Your task to perform on an android device: change the upload size in google photos Image 0: 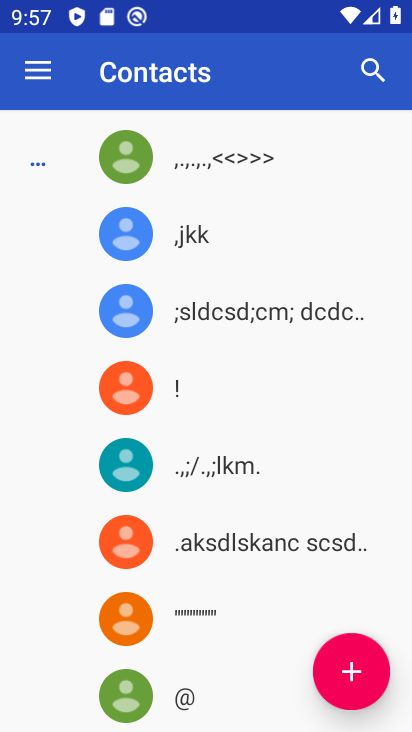
Step 0: press home button
Your task to perform on an android device: change the upload size in google photos Image 1: 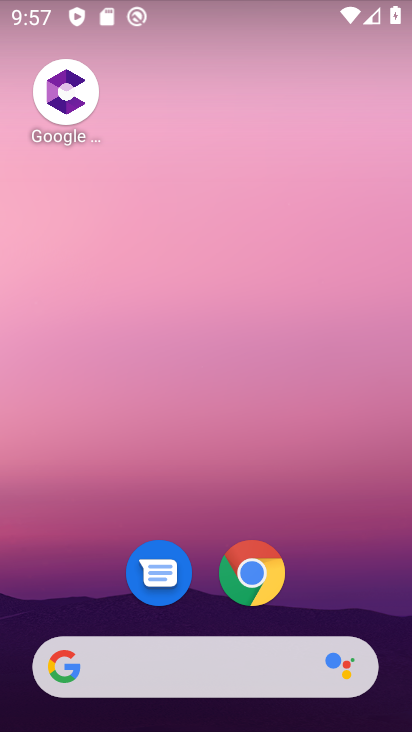
Step 1: drag from (332, 334) to (0, 161)
Your task to perform on an android device: change the upload size in google photos Image 2: 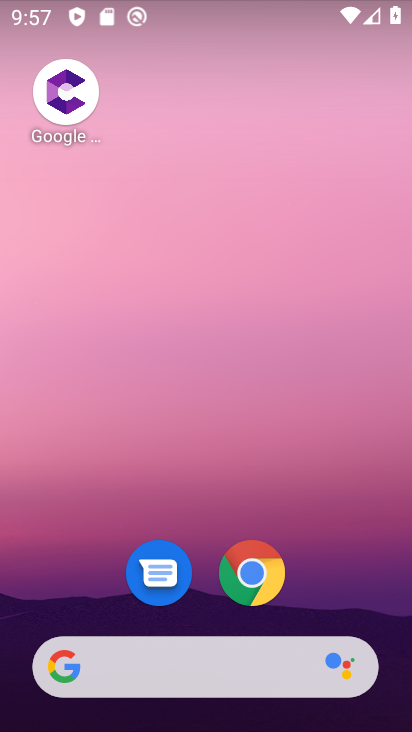
Step 2: drag from (312, 446) to (214, 43)
Your task to perform on an android device: change the upload size in google photos Image 3: 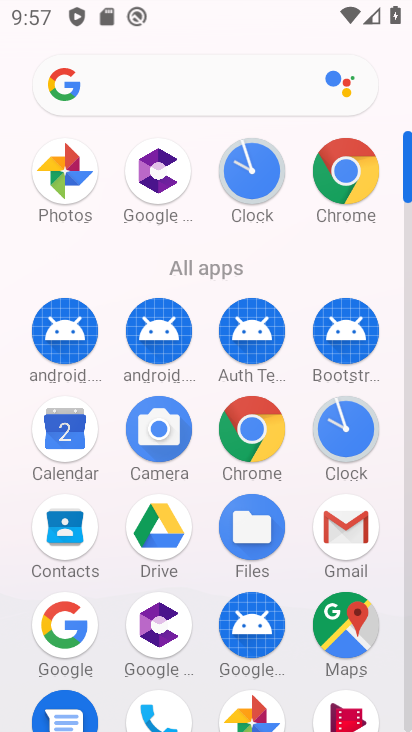
Step 3: click (40, 181)
Your task to perform on an android device: change the upload size in google photos Image 4: 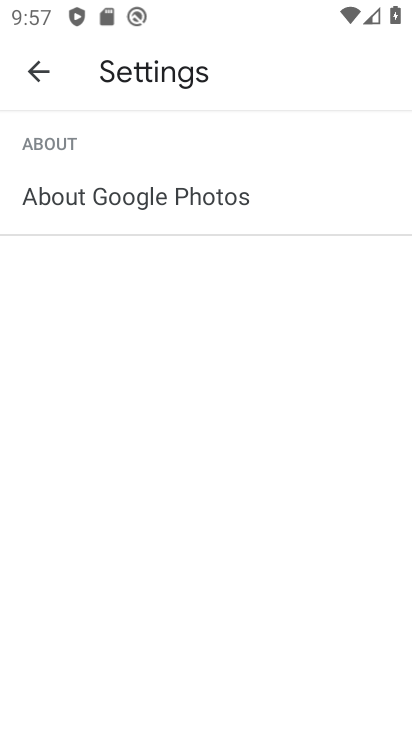
Step 4: click (42, 98)
Your task to perform on an android device: change the upload size in google photos Image 5: 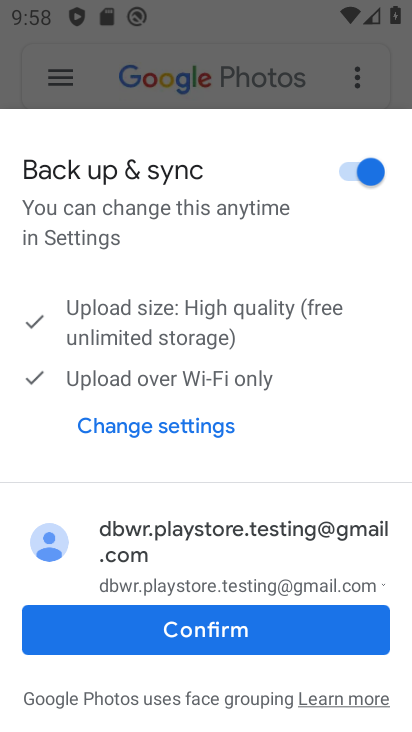
Step 5: click (191, 624)
Your task to perform on an android device: change the upload size in google photos Image 6: 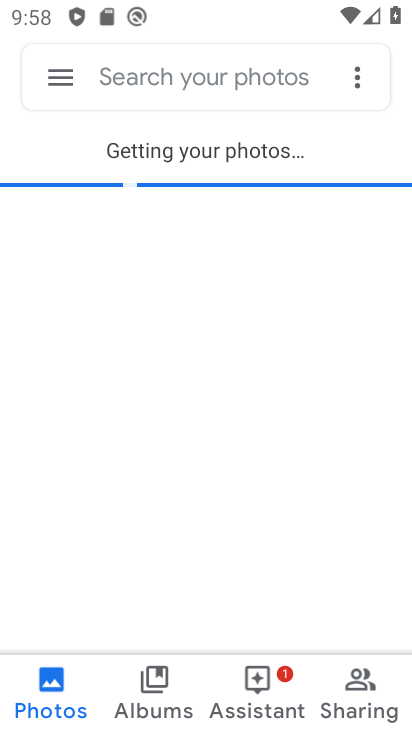
Step 6: click (46, 87)
Your task to perform on an android device: change the upload size in google photos Image 7: 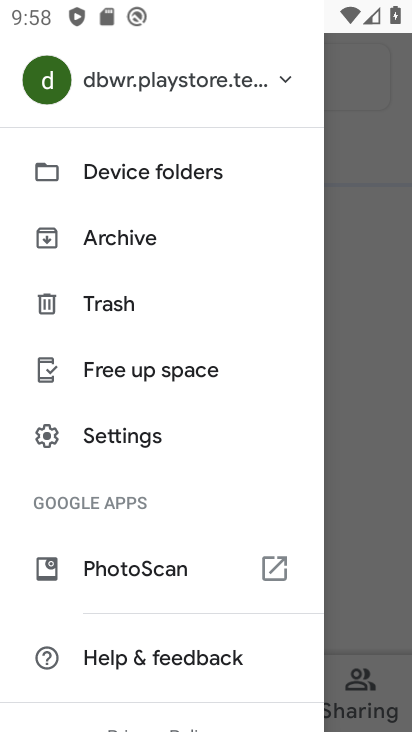
Step 7: drag from (144, 614) to (122, 167)
Your task to perform on an android device: change the upload size in google photos Image 8: 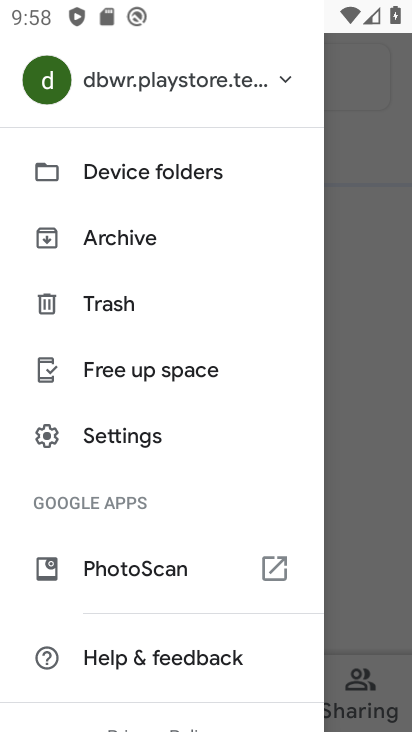
Step 8: click (119, 442)
Your task to perform on an android device: change the upload size in google photos Image 9: 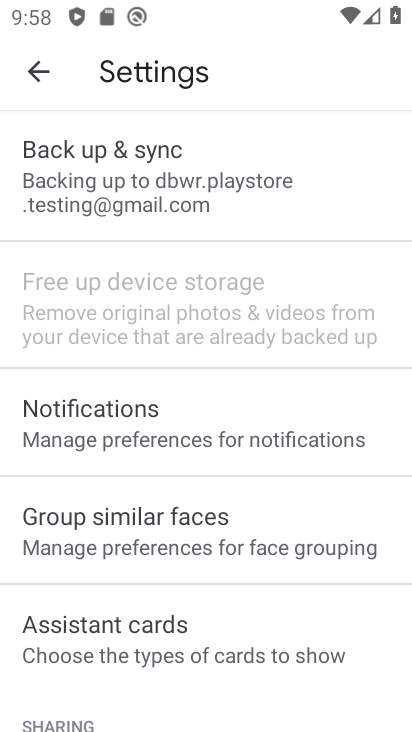
Step 9: click (84, 207)
Your task to perform on an android device: change the upload size in google photos Image 10: 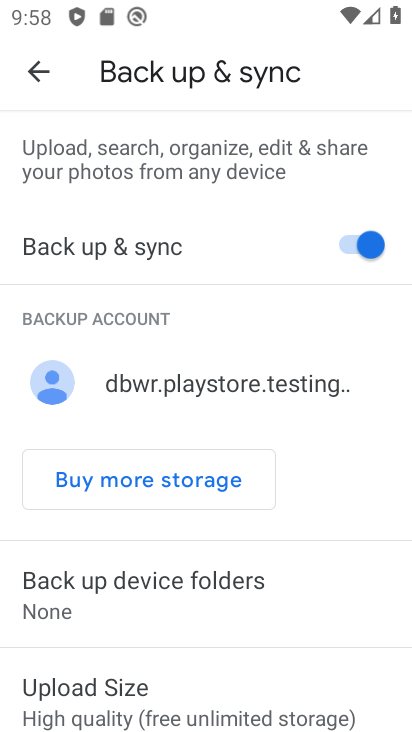
Step 10: drag from (225, 588) to (185, 145)
Your task to perform on an android device: change the upload size in google photos Image 11: 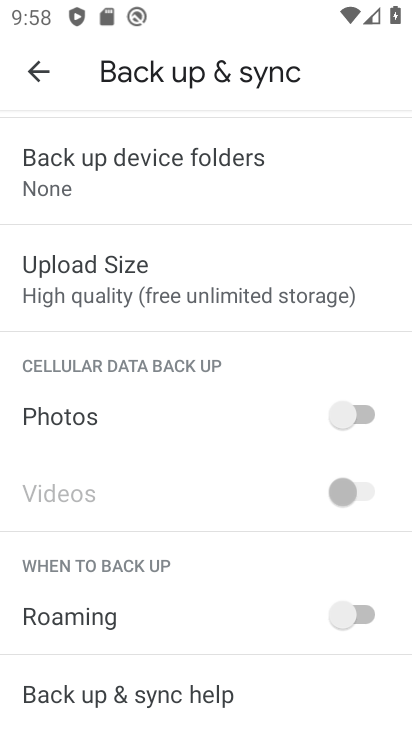
Step 11: click (143, 292)
Your task to perform on an android device: change the upload size in google photos Image 12: 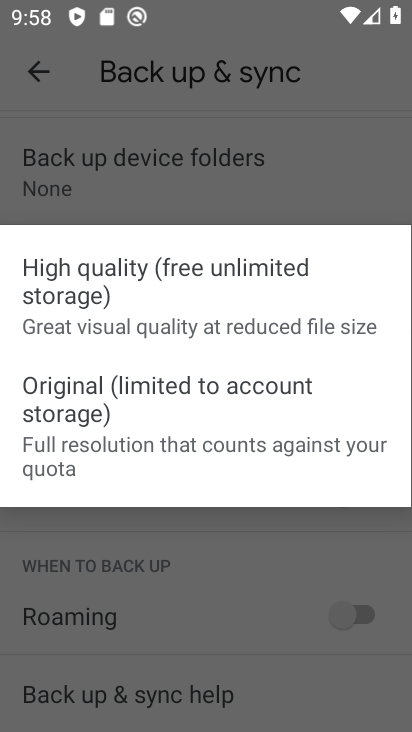
Step 12: click (111, 391)
Your task to perform on an android device: change the upload size in google photos Image 13: 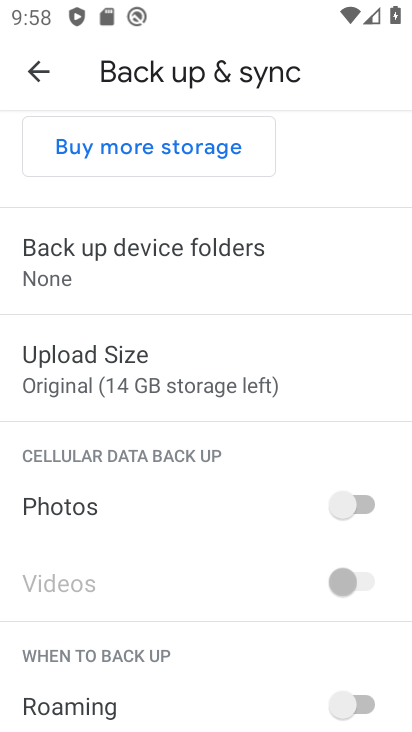
Step 13: task complete